Your task to perform on an android device: search for starred emails in the gmail app Image 0: 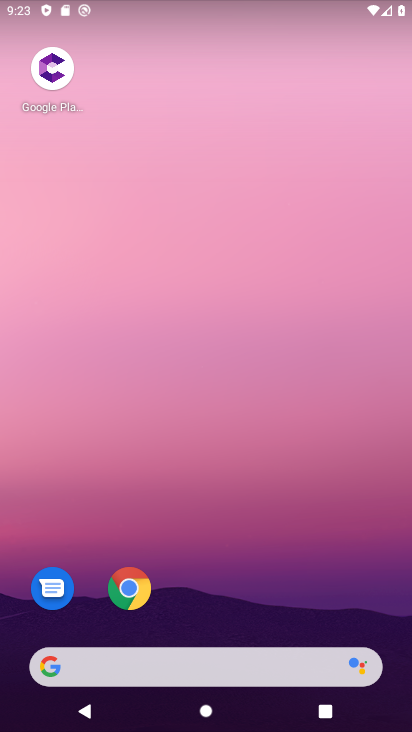
Step 0: drag from (228, 642) to (230, 416)
Your task to perform on an android device: search for starred emails in the gmail app Image 1: 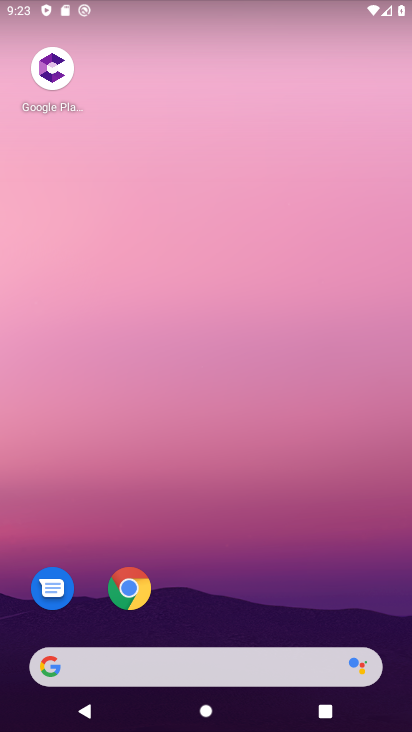
Step 1: drag from (187, 642) to (223, 282)
Your task to perform on an android device: search for starred emails in the gmail app Image 2: 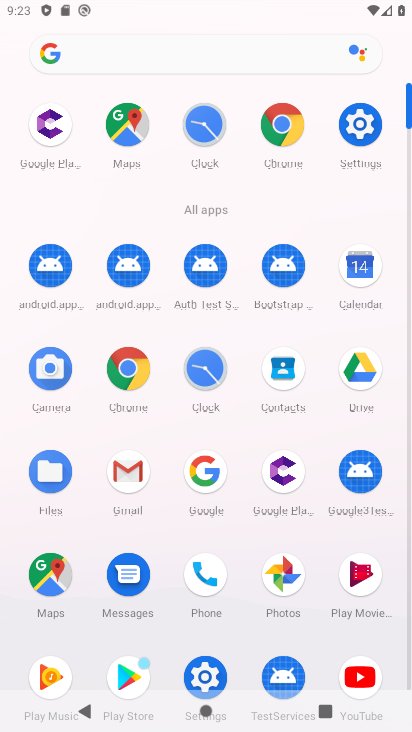
Step 2: click (122, 479)
Your task to perform on an android device: search for starred emails in the gmail app Image 3: 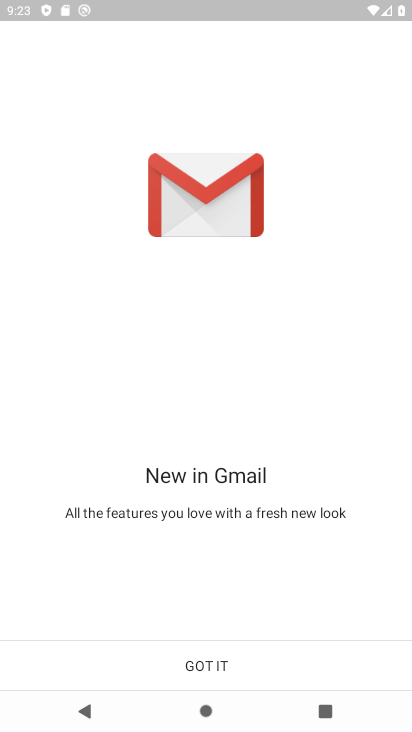
Step 3: click (190, 656)
Your task to perform on an android device: search for starred emails in the gmail app Image 4: 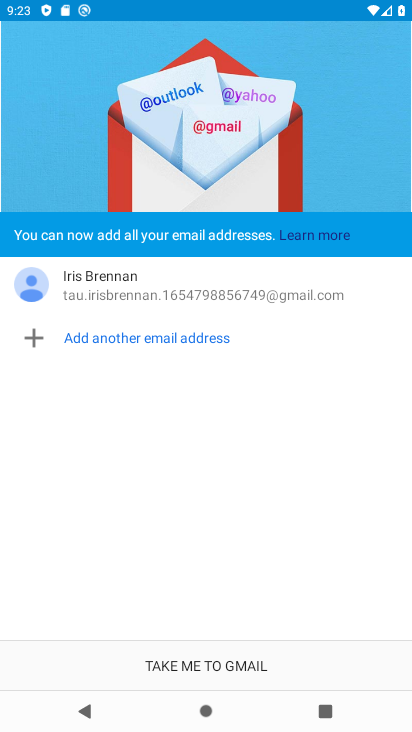
Step 4: click (190, 656)
Your task to perform on an android device: search for starred emails in the gmail app Image 5: 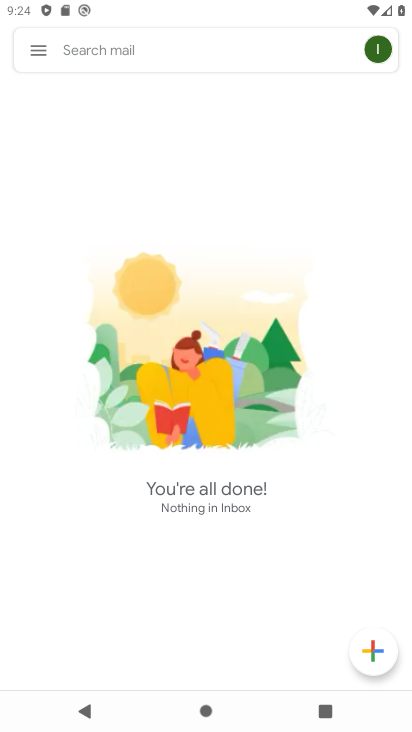
Step 5: click (35, 47)
Your task to perform on an android device: search for starred emails in the gmail app Image 6: 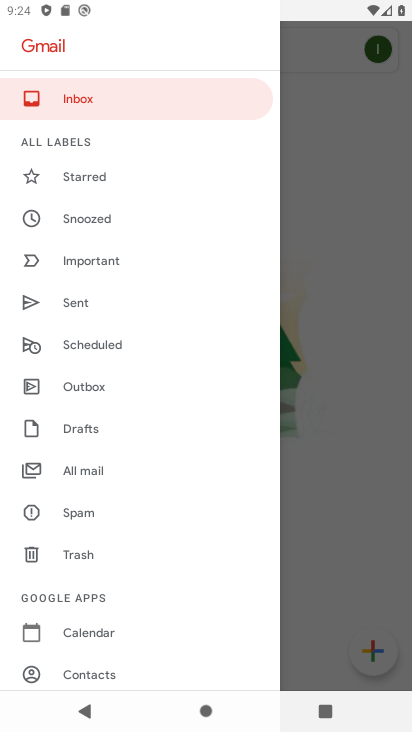
Step 6: click (78, 175)
Your task to perform on an android device: search for starred emails in the gmail app Image 7: 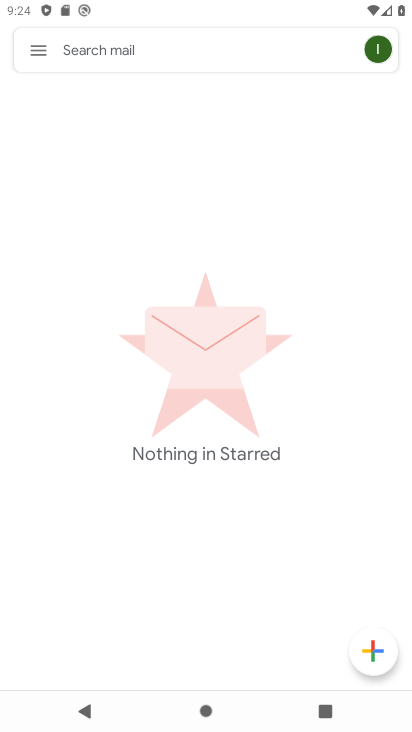
Step 7: task complete